Your task to perform on an android device: make emails show in primary in the gmail app Image 0: 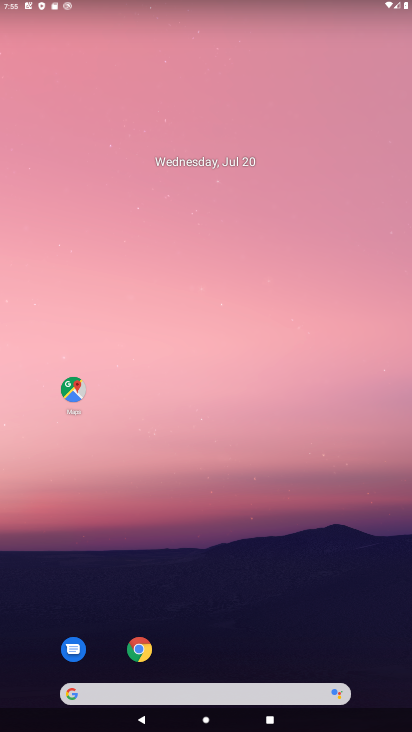
Step 0: drag from (172, 692) to (190, 181)
Your task to perform on an android device: make emails show in primary in the gmail app Image 1: 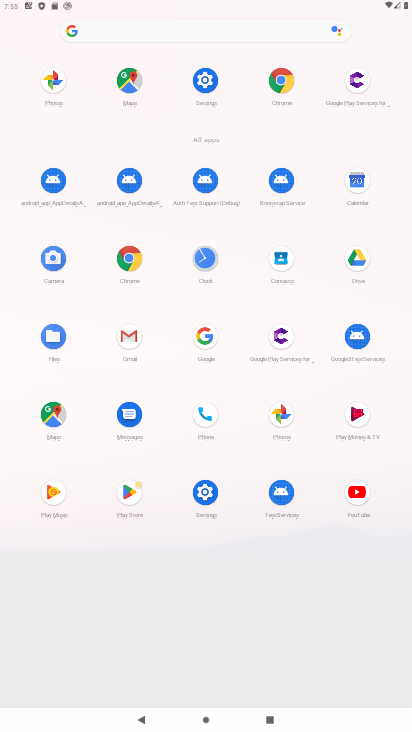
Step 1: click (130, 336)
Your task to perform on an android device: make emails show in primary in the gmail app Image 2: 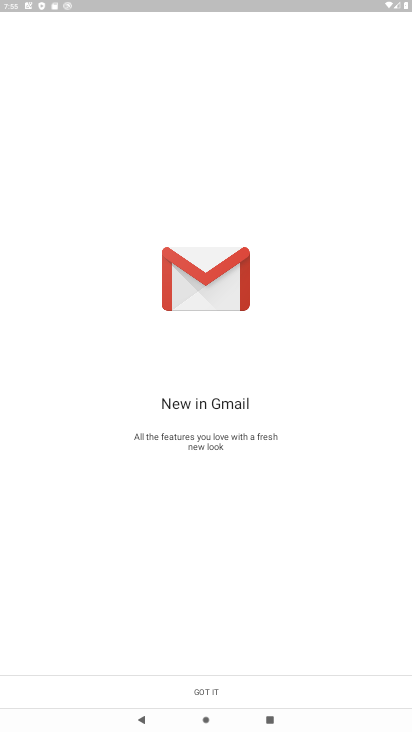
Step 2: click (210, 692)
Your task to perform on an android device: make emails show in primary in the gmail app Image 3: 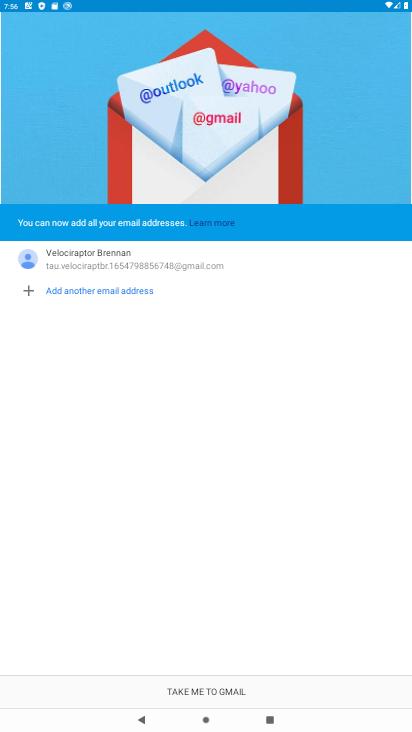
Step 3: click (210, 692)
Your task to perform on an android device: make emails show in primary in the gmail app Image 4: 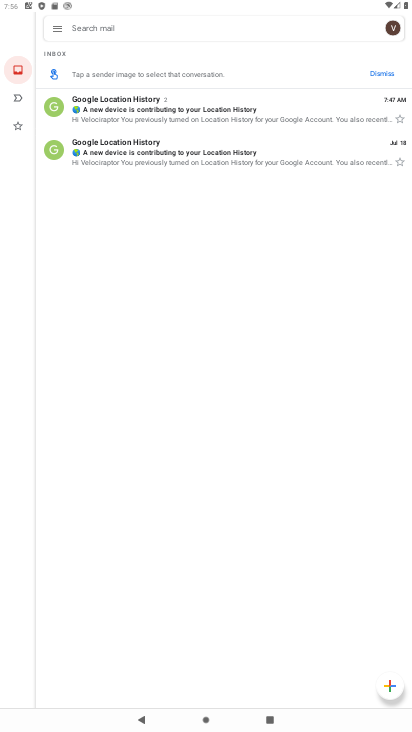
Step 4: click (54, 25)
Your task to perform on an android device: make emails show in primary in the gmail app Image 5: 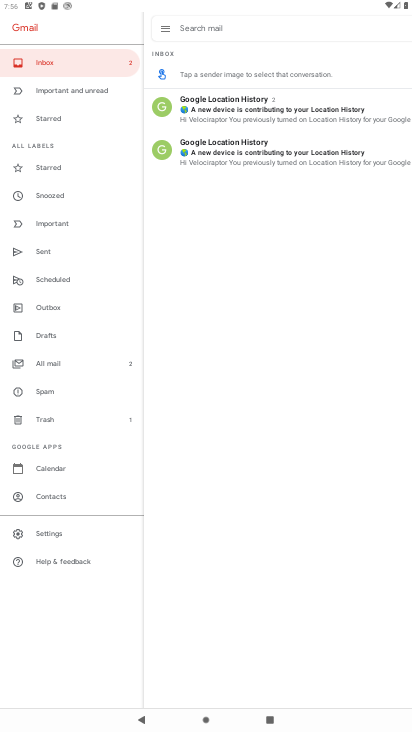
Step 5: click (43, 533)
Your task to perform on an android device: make emails show in primary in the gmail app Image 6: 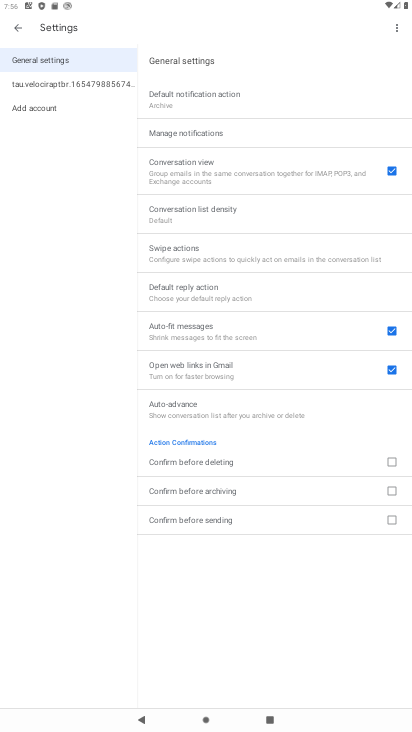
Step 6: click (112, 85)
Your task to perform on an android device: make emails show in primary in the gmail app Image 7: 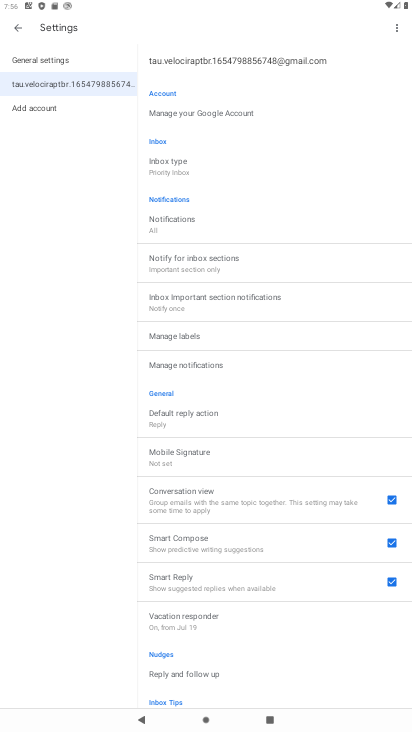
Step 7: click (181, 171)
Your task to perform on an android device: make emails show in primary in the gmail app Image 8: 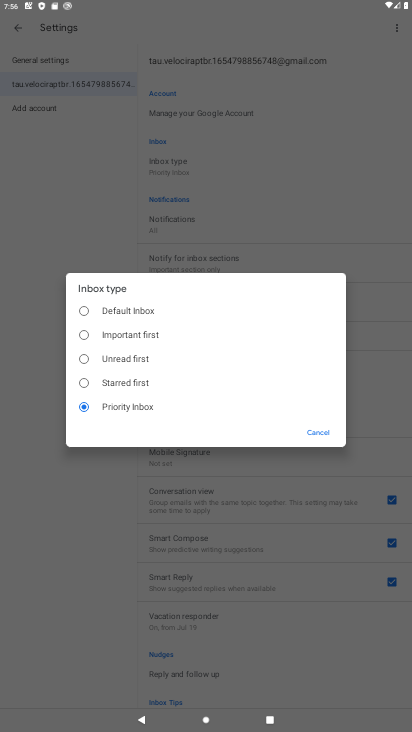
Step 8: click (87, 312)
Your task to perform on an android device: make emails show in primary in the gmail app Image 9: 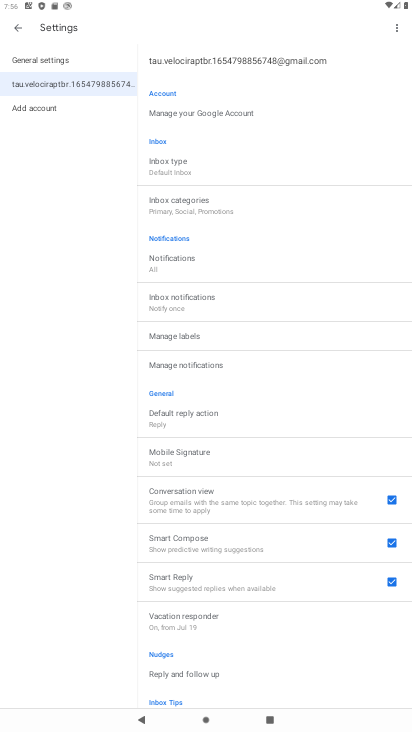
Step 9: click (192, 206)
Your task to perform on an android device: make emails show in primary in the gmail app Image 10: 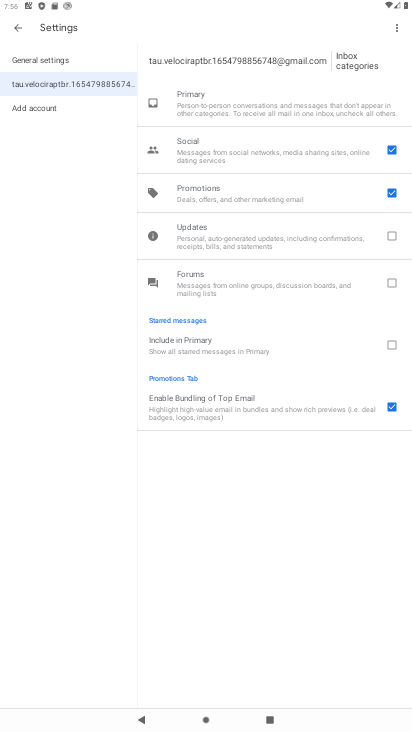
Step 10: click (391, 144)
Your task to perform on an android device: make emails show in primary in the gmail app Image 11: 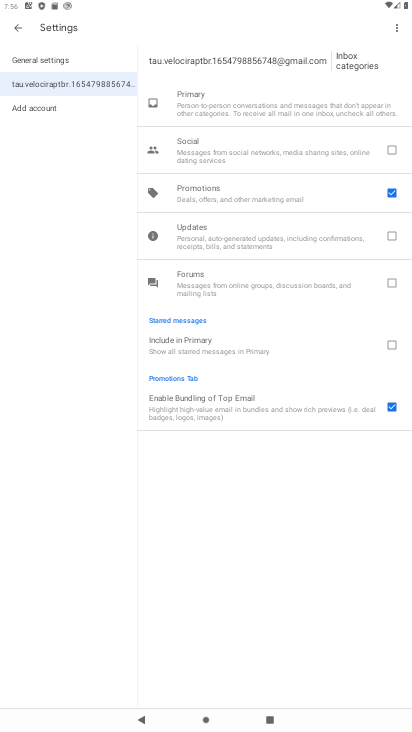
Step 11: click (386, 196)
Your task to perform on an android device: make emails show in primary in the gmail app Image 12: 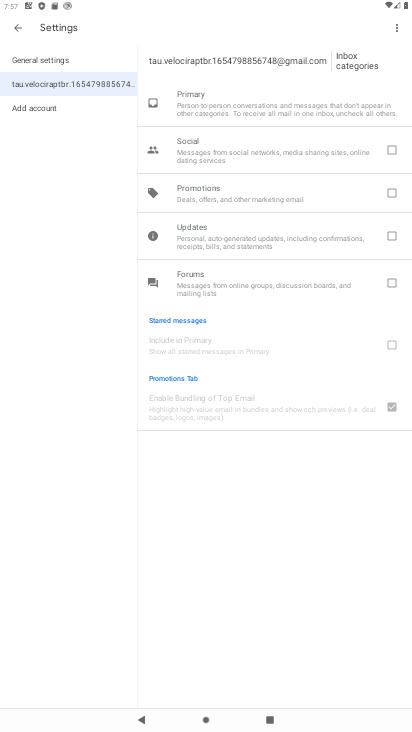
Step 12: task complete